Your task to perform on an android device: What is the recent news? Image 0: 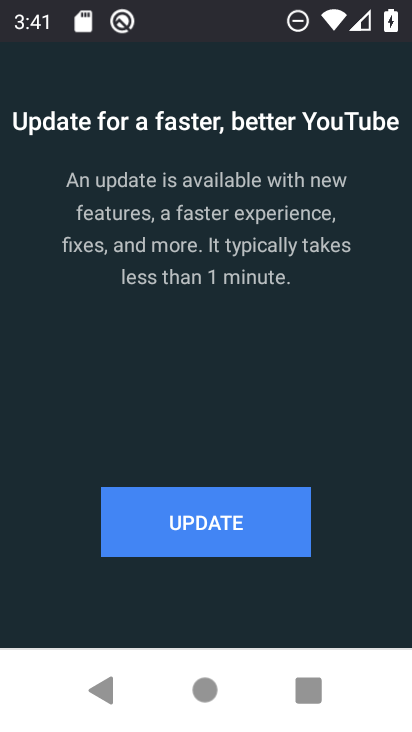
Step 0: click (200, 677)
Your task to perform on an android device: What is the recent news? Image 1: 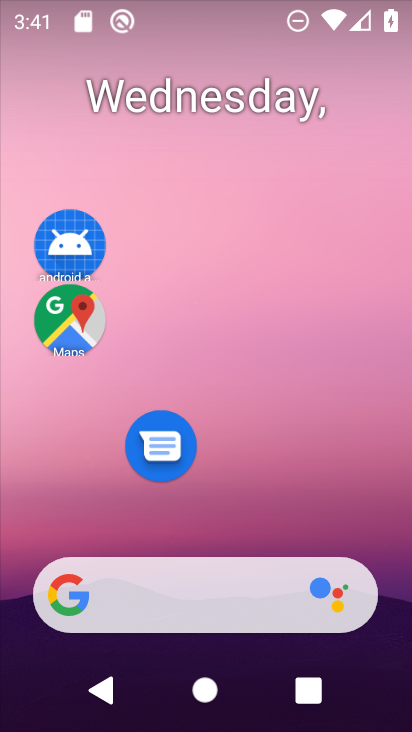
Step 1: drag from (234, 516) to (224, 126)
Your task to perform on an android device: What is the recent news? Image 2: 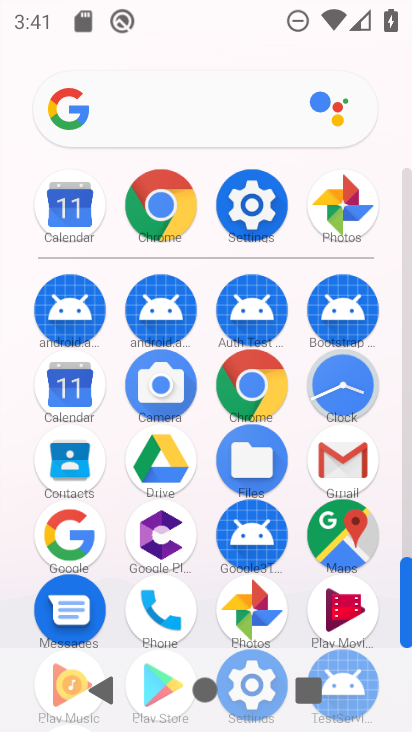
Step 2: click (223, 126)
Your task to perform on an android device: What is the recent news? Image 3: 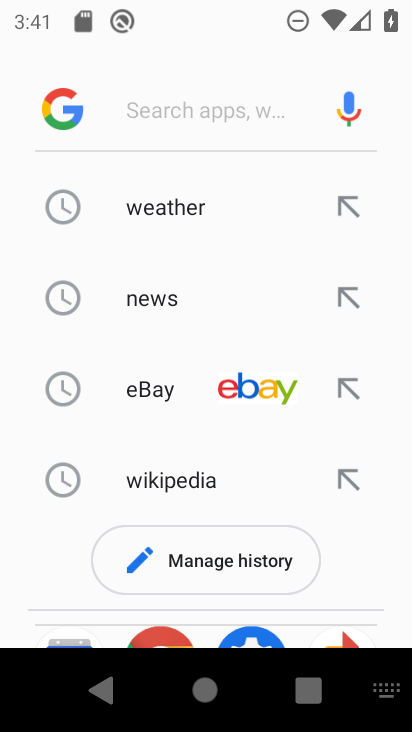
Step 3: click (197, 272)
Your task to perform on an android device: What is the recent news? Image 4: 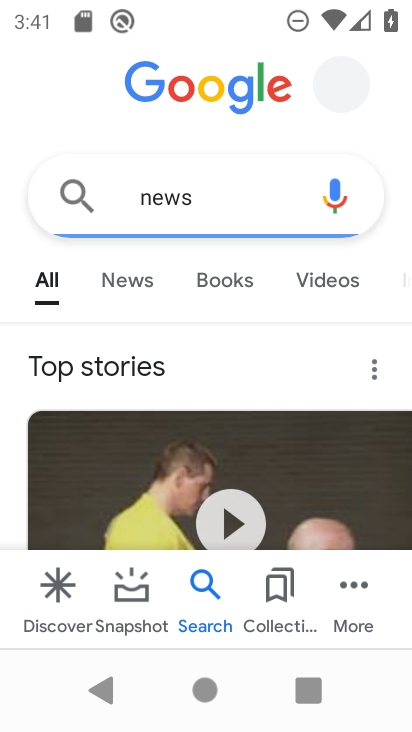
Step 4: task complete